Your task to perform on an android device: Open calendar and show me the fourth week of next month Image 0: 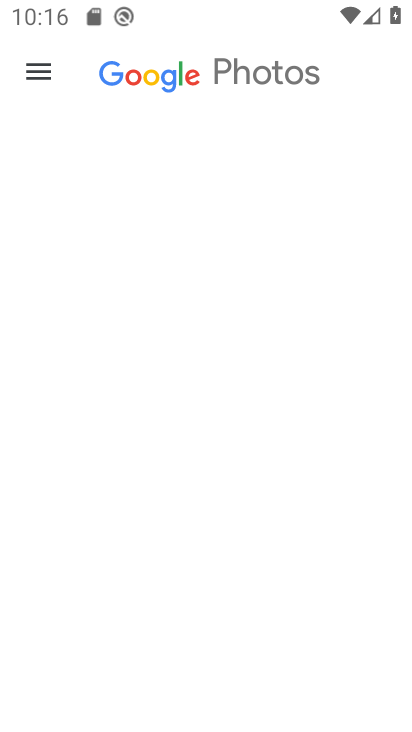
Step 0: press home button
Your task to perform on an android device: Open calendar and show me the fourth week of next month Image 1: 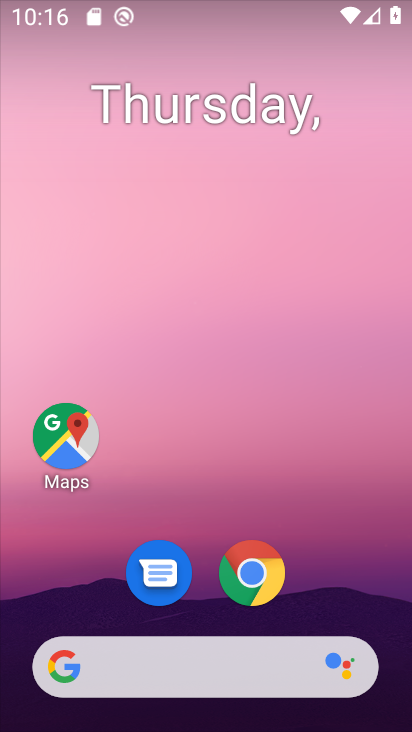
Step 1: drag from (191, 620) to (216, 10)
Your task to perform on an android device: Open calendar and show me the fourth week of next month Image 2: 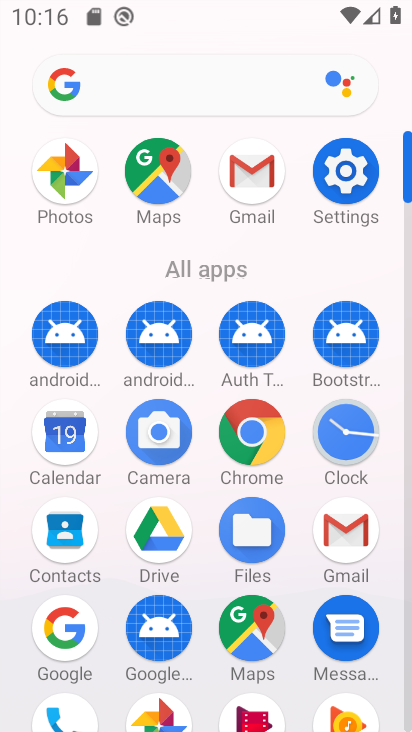
Step 2: click (57, 458)
Your task to perform on an android device: Open calendar and show me the fourth week of next month Image 3: 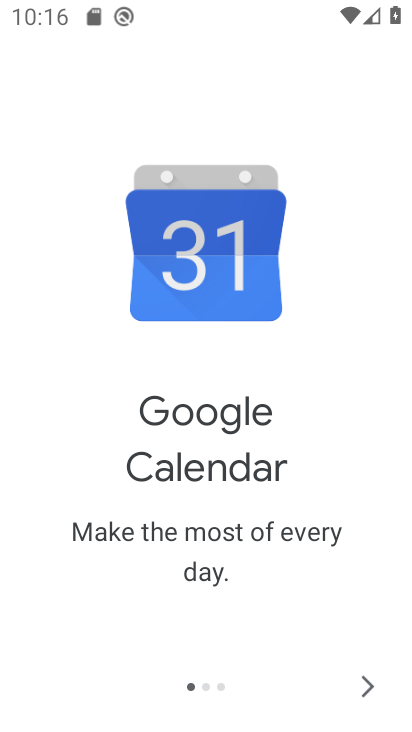
Step 3: click (362, 685)
Your task to perform on an android device: Open calendar and show me the fourth week of next month Image 4: 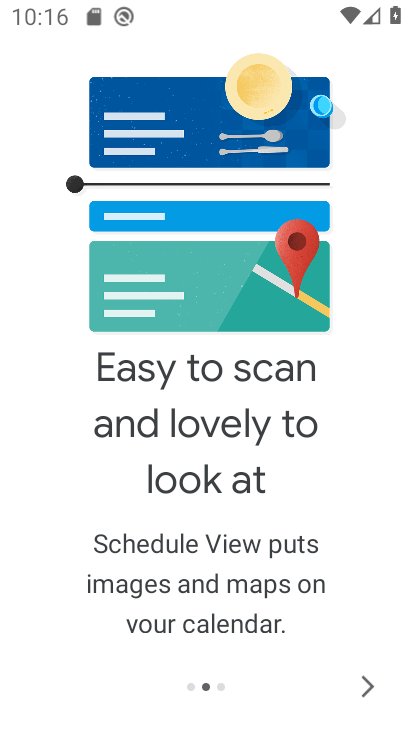
Step 4: click (363, 684)
Your task to perform on an android device: Open calendar and show me the fourth week of next month Image 5: 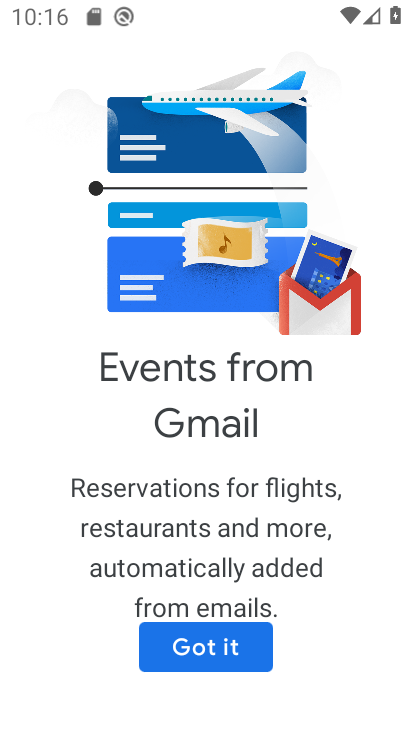
Step 5: click (243, 650)
Your task to perform on an android device: Open calendar and show me the fourth week of next month Image 6: 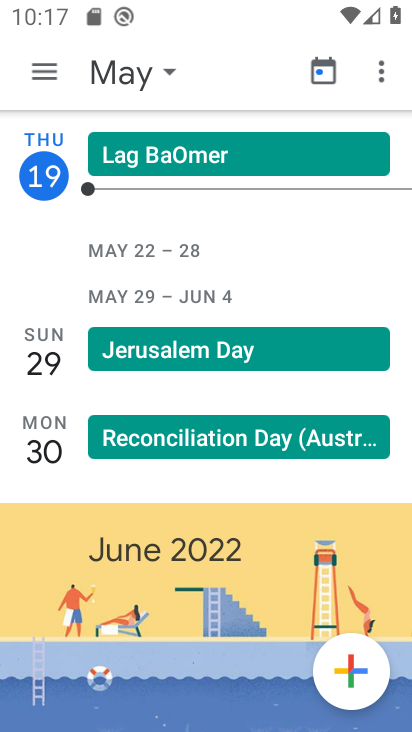
Step 6: click (44, 73)
Your task to perform on an android device: Open calendar and show me the fourth week of next month Image 7: 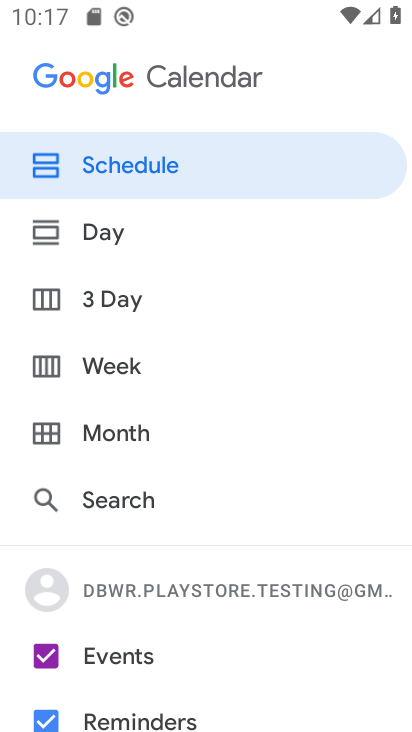
Step 7: click (125, 351)
Your task to perform on an android device: Open calendar and show me the fourth week of next month Image 8: 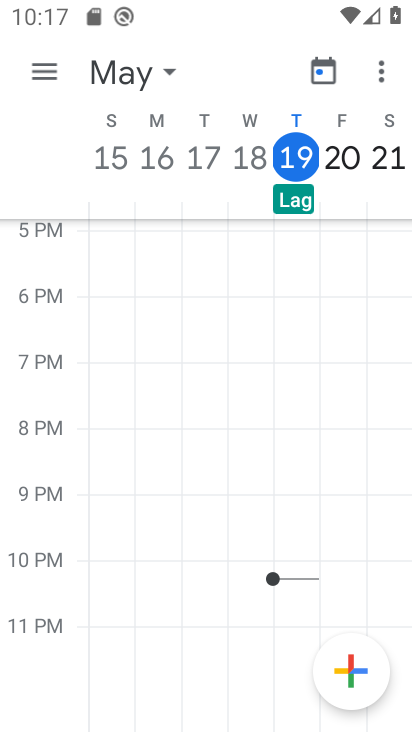
Step 8: task complete